Your task to perform on an android device: Go to Reddit.com Image 0: 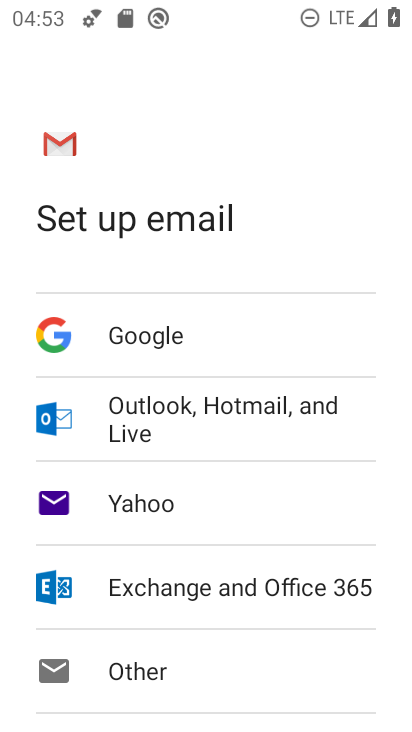
Step 0: press home button
Your task to perform on an android device: Go to Reddit.com Image 1: 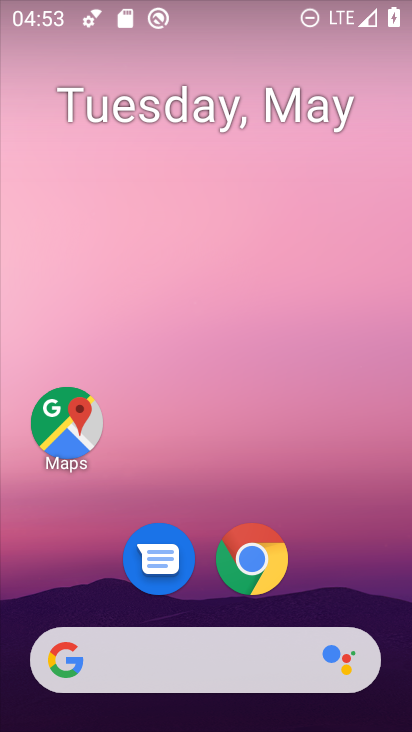
Step 1: click (254, 559)
Your task to perform on an android device: Go to Reddit.com Image 2: 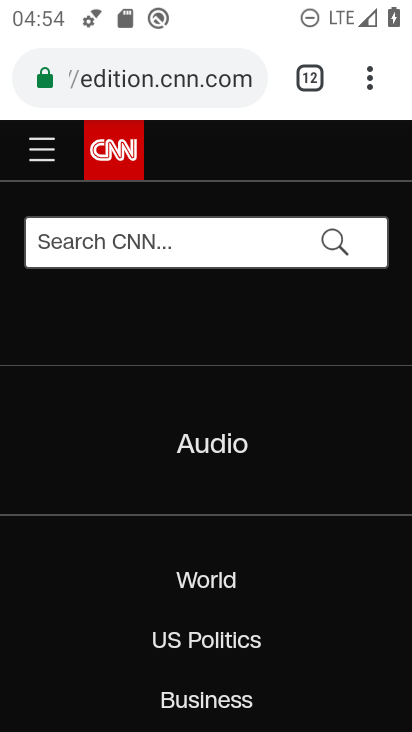
Step 2: click (368, 86)
Your task to perform on an android device: Go to Reddit.com Image 3: 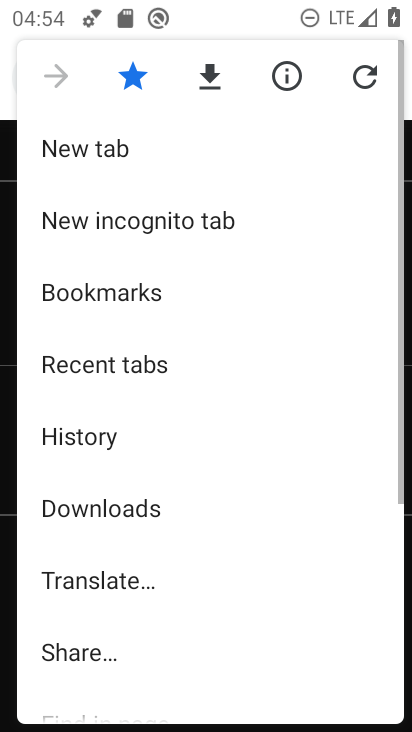
Step 3: click (82, 149)
Your task to perform on an android device: Go to Reddit.com Image 4: 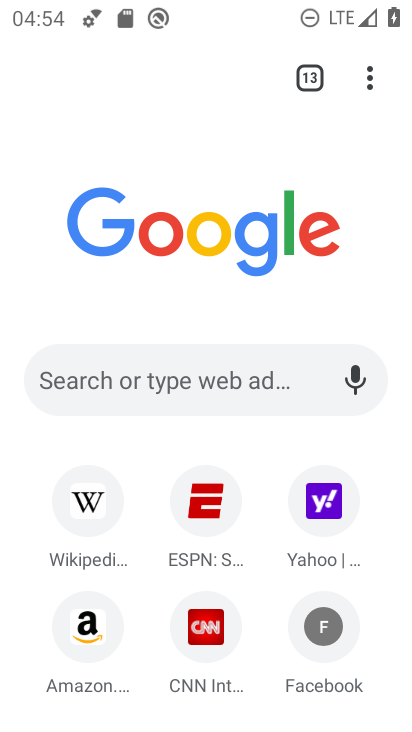
Step 4: click (141, 384)
Your task to perform on an android device: Go to Reddit.com Image 5: 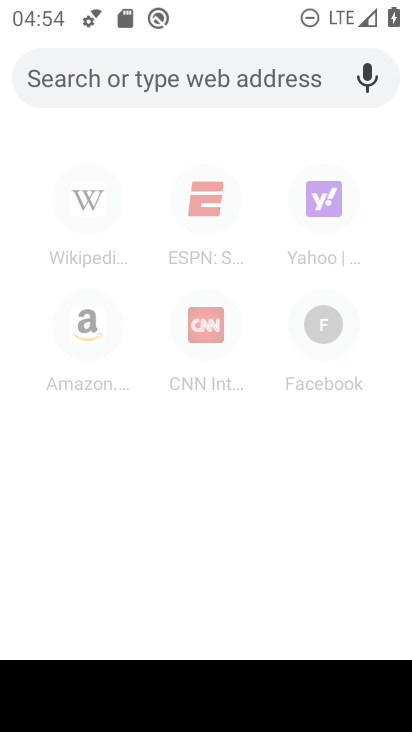
Step 5: type "Reddit.com"
Your task to perform on an android device: Go to Reddit.com Image 6: 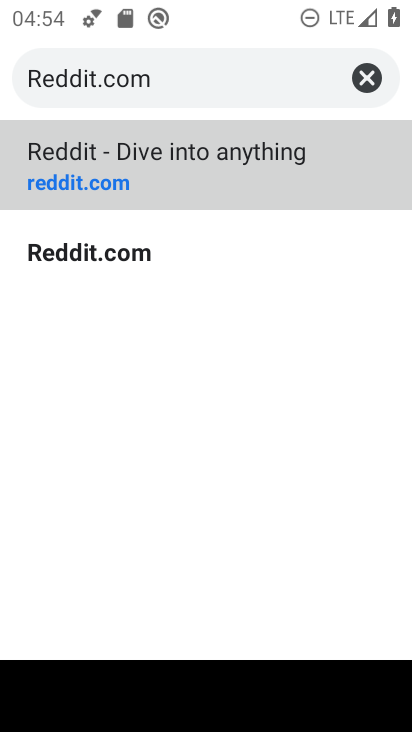
Step 6: click (103, 157)
Your task to perform on an android device: Go to Reddit.com Image 7: 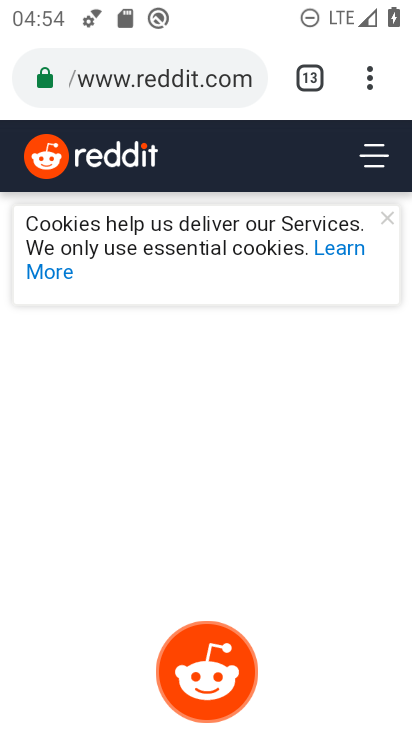
Step 7: task complete